Your task to perform on an android device: turn off wifi Image 0: 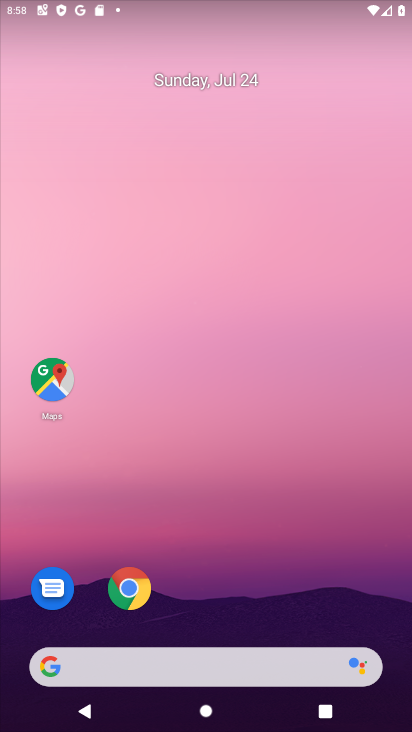
Step 0: drag from (249, 652) to (196, 198)
Your task to perform on an android device: turn off wifi Image 1: 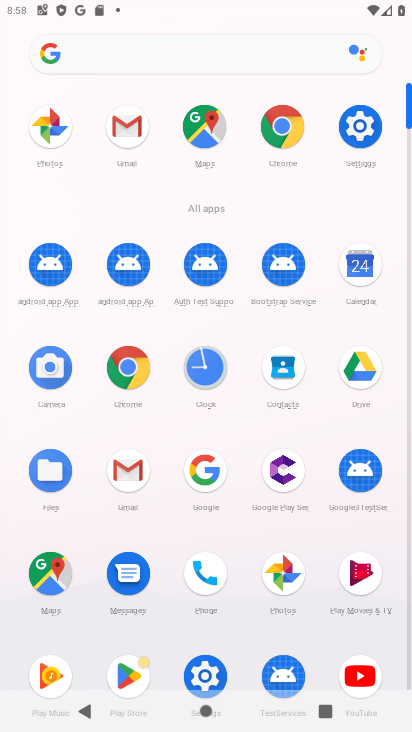
Step 1: click (353, 141)
Your task to perform on an android device: turn off wifi Image 2: 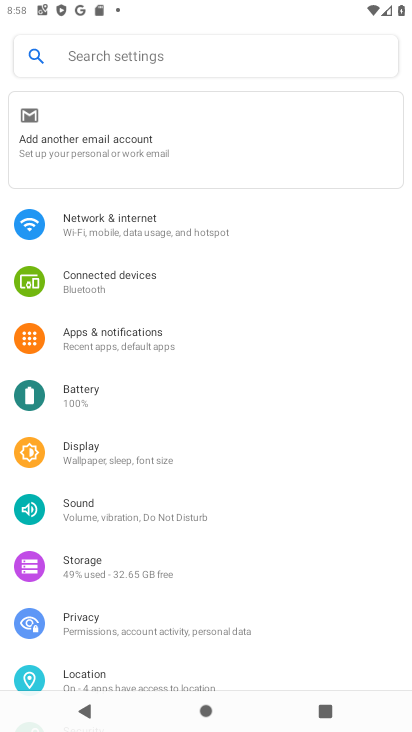
Step 2: click (99, 230)
Your task to perform on an android device: turn off wifi Image 3: 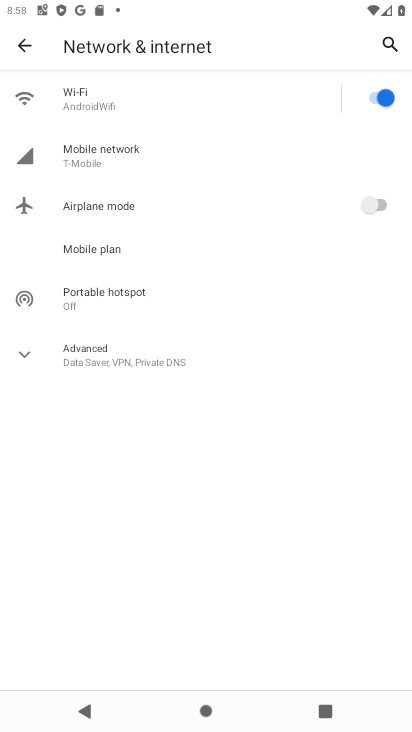
Step 3: click (390, 92)
Your task to perform on an android device: turn off wifi Image 4: 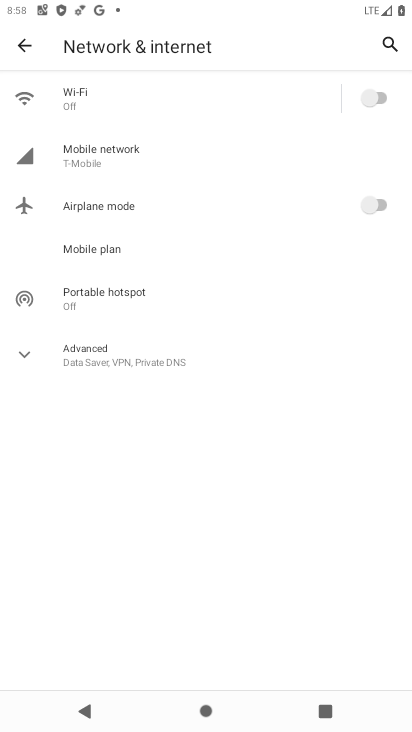
Step 4: task complete